Your task to perform on an android device: turn on priority inbox in the gmail app Image 0: 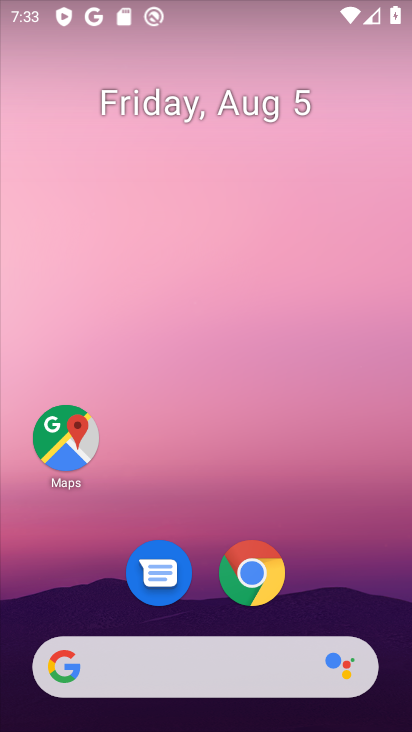
Step 0: drag from (334, 571) to (282, 0)
Your task to perform on an android device: turn on priority inbox in the gmail app Image 1: 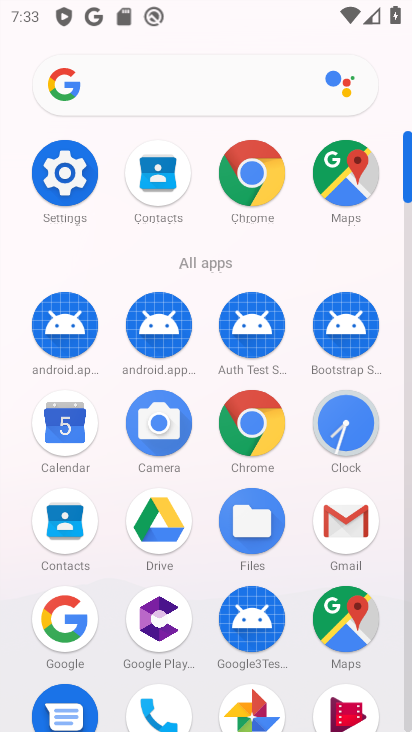
Step 1: click (340, 508)
Your task to perform on an android device: turn on priority inbox in the gmail app Image 2: 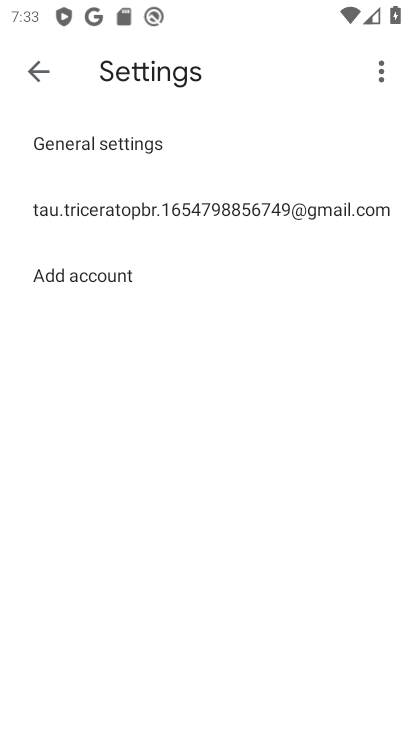
Step 2: click (44, 75)
Your task to perform on an android device: turn on priority inbox in the gmail app Image 3: 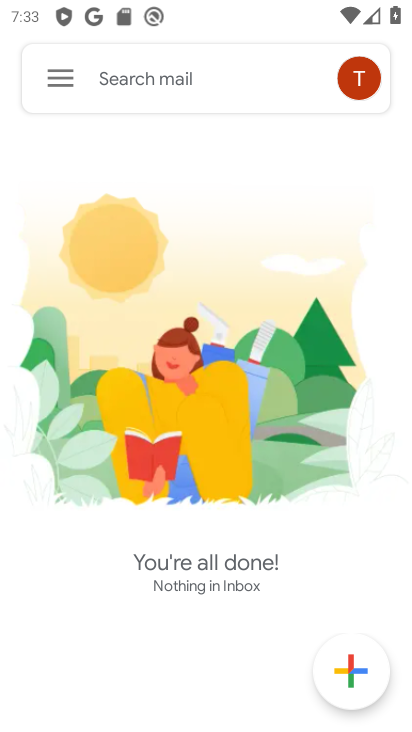
Step 3: click (61, 71)
Your task to perform on an android device: turn on priority inbox in the gmail app Image 4: 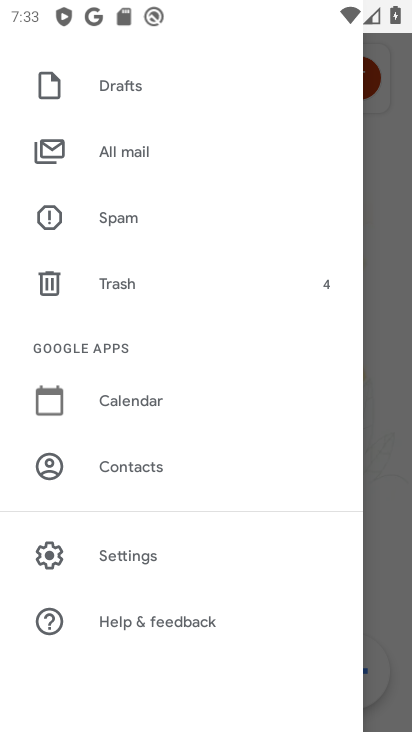
Step 4: click (142, 554)
Your task to perform on an android device: turn on priority inbox in the gmail app Image 5: 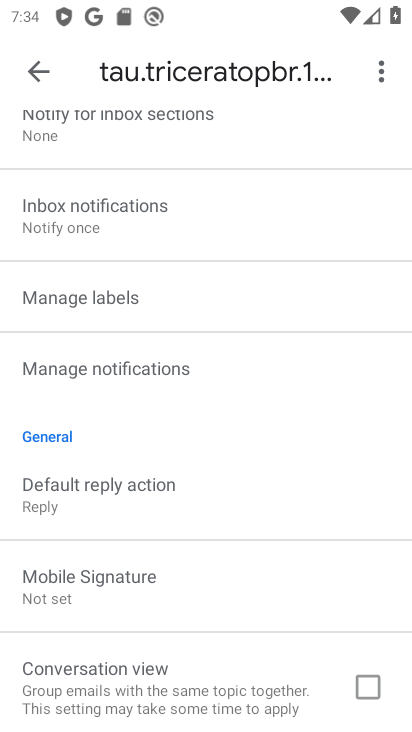
Step 5: task complete